Your task to perform on an android device: Show me popular videos on Youtube Image 0: 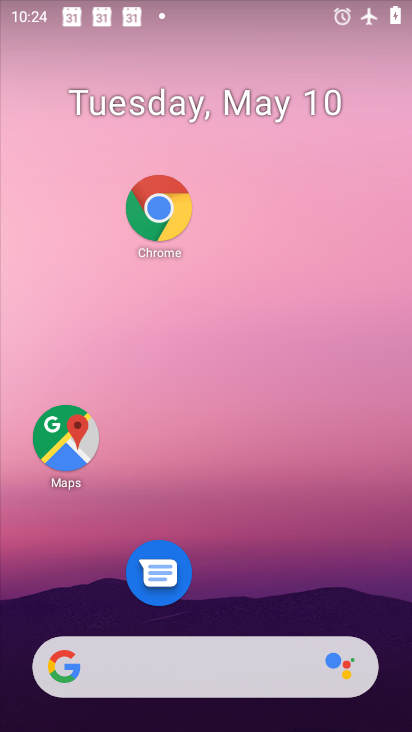
Step 0: drag from (302, 720) to (338, 165)
Your task to perform on an android device: Show me popular videos on Youtube Image 1: 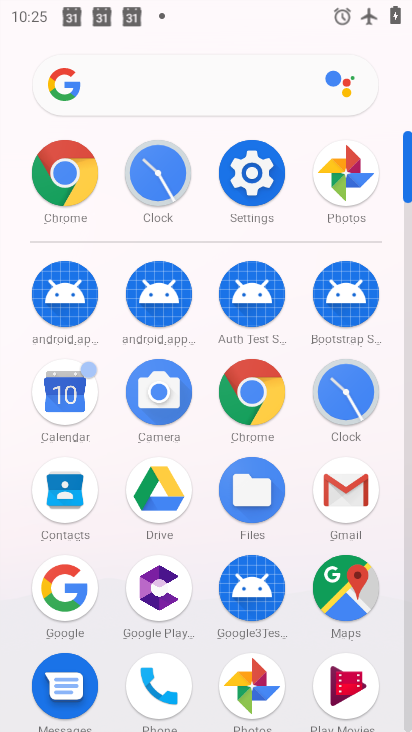
Step 1: drag from (201, 539) to (218, 308)
Your task to perform on an android device: Show me popular videos on Youtube Image 2: 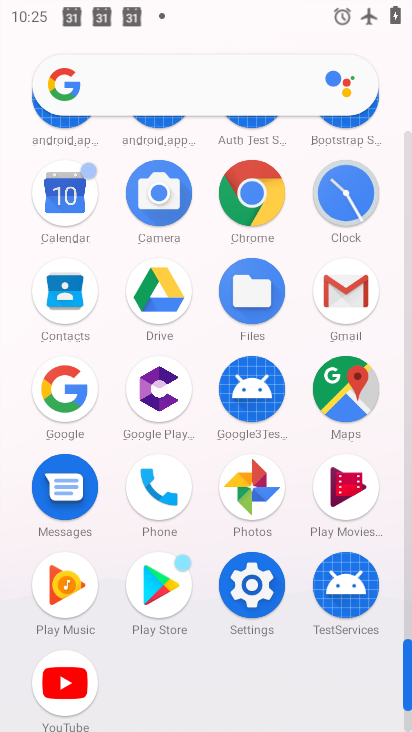
Step 2: click (69, 690)
Your task to perform on an android device: Show me popular videos on Youtube Image 3: 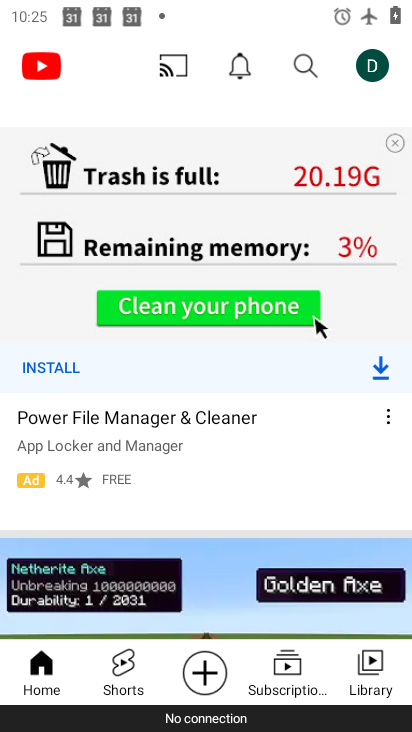
Step 3: click (301, 56)
Your task to perform on an android device: Show me popular videos on Youtube Image 4: 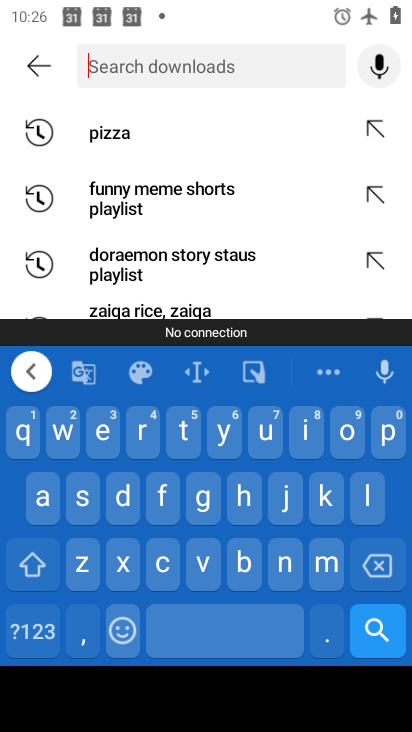
Step 4: click (379, 441)
Your task to perform on an android device: Show me popular videos on Youtube Image 5: 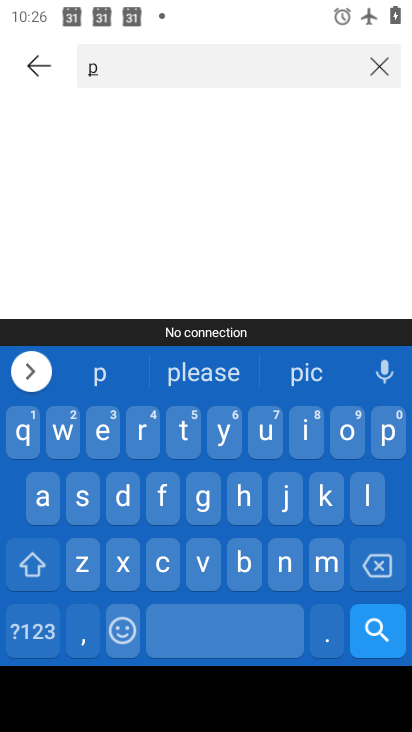
Step 5: click (343, 428)
Your task to perform on an android device: Show me popular videos on Youtube Image 6: 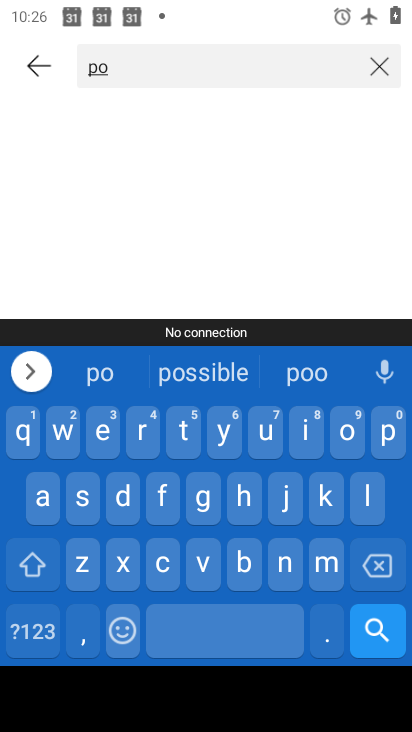
Step 6: click (385, 435)
Your task to perform on an android device: Show me popular videos on Youtube Image 7: 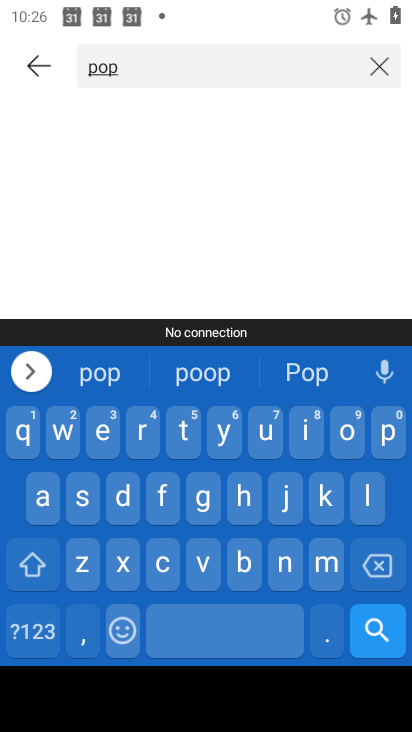
Step 7: click (262, 434)
Your task to perform on an android device: Show me popular videos on Youtube Image 8: 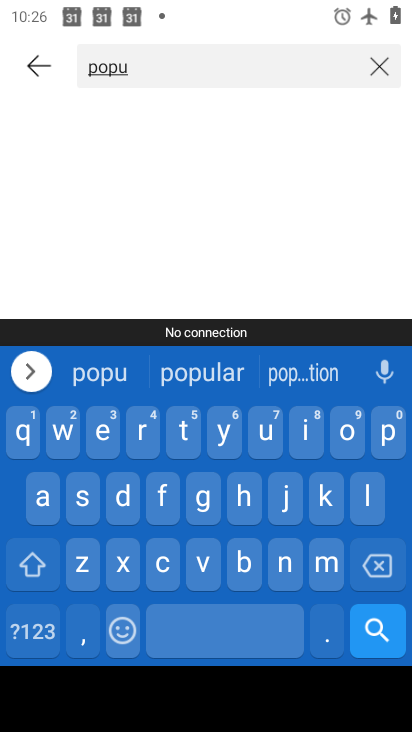
Step 8: click (229, 375)
Your task to perform on an android device: Show me popular videos on Youtube Image 9: 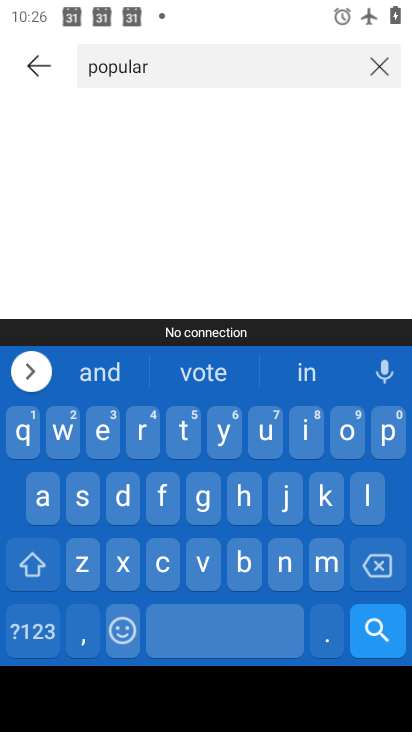
Step 9: click (207, 565)
Your task to perform on an android device: Show me popular videos on Youtube Image 10: 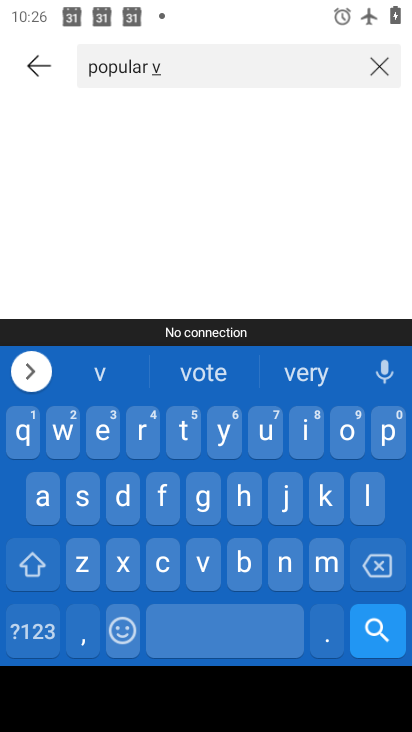
Step 10: click (306, 437)
Your task to perform on an android device: Show me popular videos on Youtube Image 11: 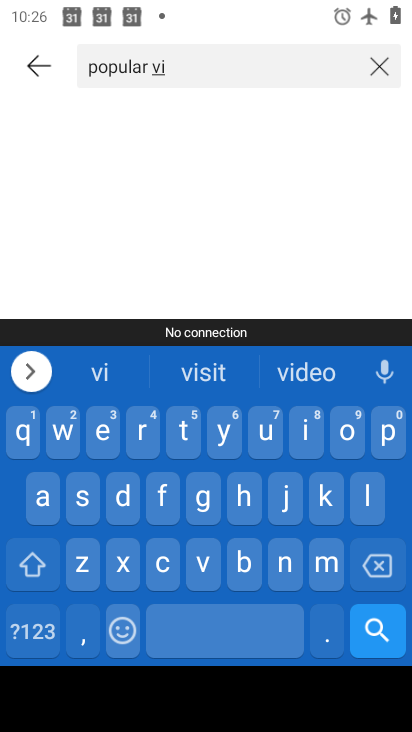
Step 11: click (301, 380)
Your task to perform on an android device: Show me popular videos on Youtube Image 12: 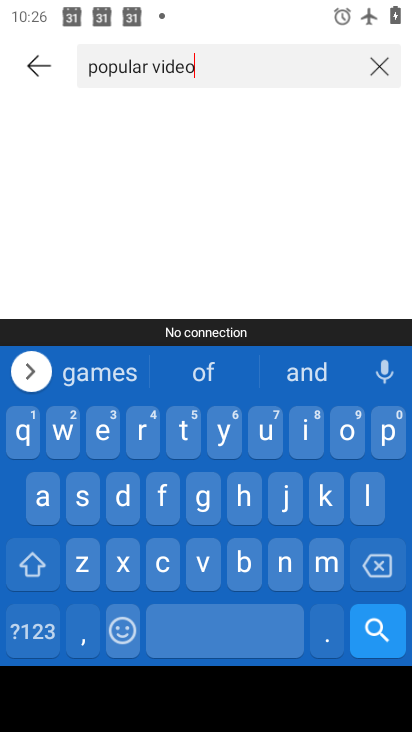
Step 12: press home button
Your task to perform on an android device: Show me popular videos on Youtube Image 13: 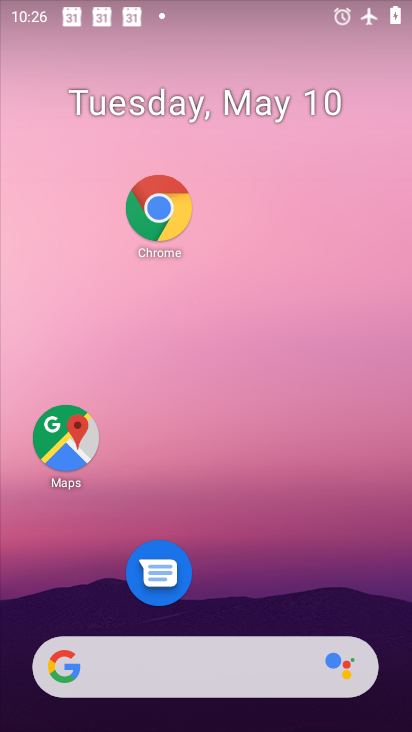
Step 13: drag from (281, 684) to (343, 109)
Your task to perform on an android device: Show me popular videos on Youtube Image 14: 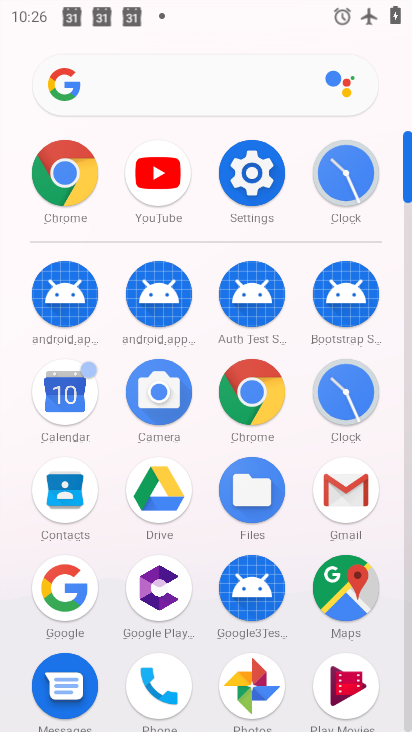
Step 14: click (262, 170)
Your task to perform on an android device: Show me popular videos on Youtube Image 15: 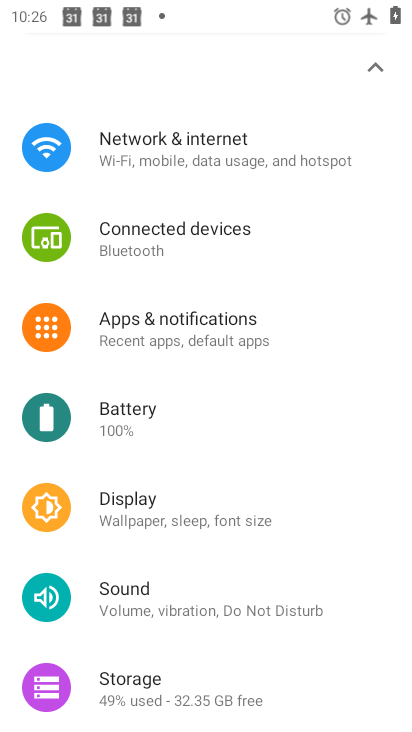
Step 15: click (369, 59)
Your task to perform on an android device: Show me popular videos on Youtube Image 16: 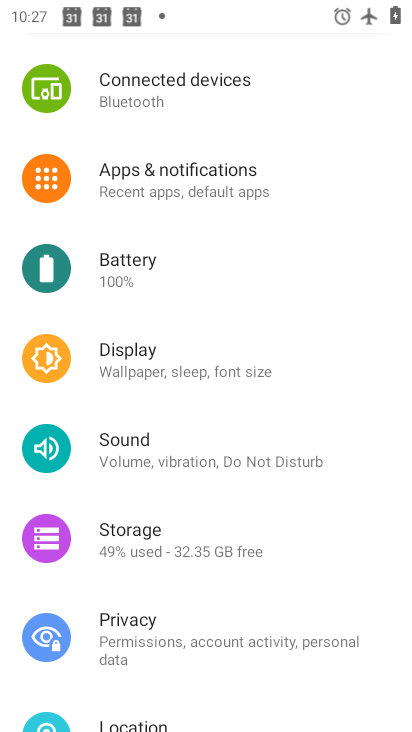
Step 16: drag from (191, 165) to (174, 568)
Your task to perform on an android device: Show me popular videos on Youtube Image 17: 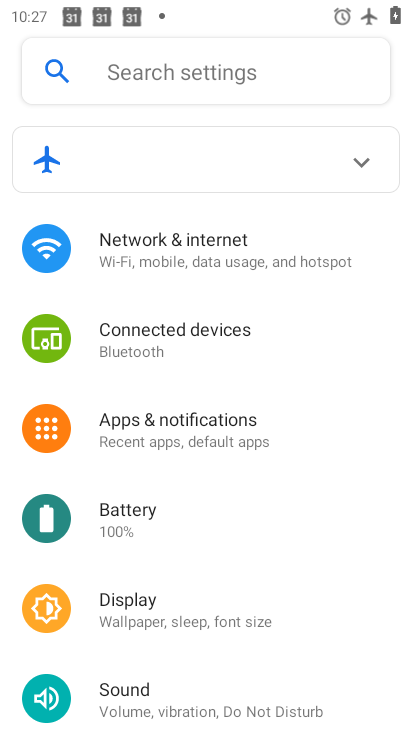
Step 17: click (169, 166)
Your task to perform on an android device: Show me popular videos on Youtube Image 18: 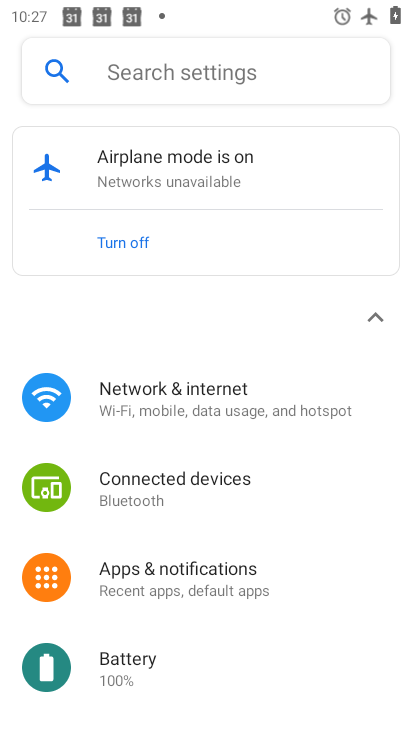
Step 18: click (118, 239)
Your task to perform on an android device: Show me popular videos on Youtube Image 19: 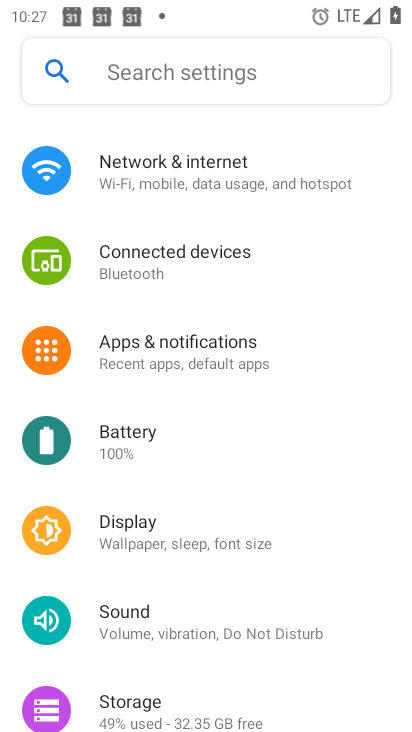
Step 19: press home button
Your task to perform on an android device: Show me popular videos on Youtube Image 20: 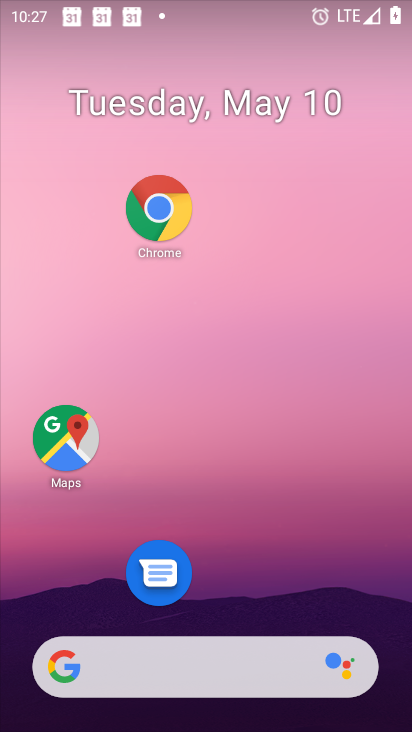
Step 20: drag from (229, 694) to (363, 277)
Your task to perform on an android device: Show me popular videos on Youtube Image 21: 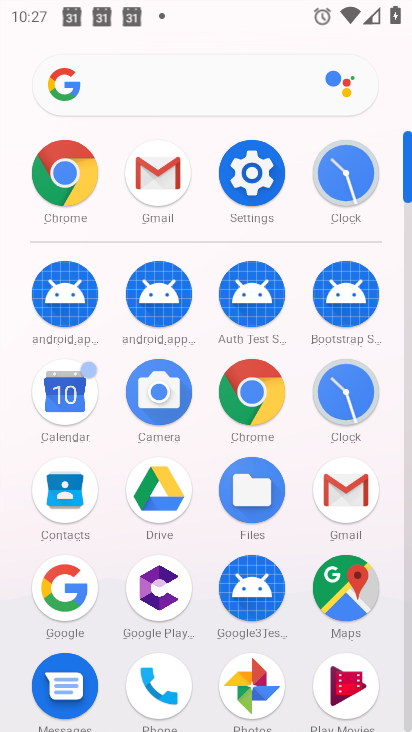
Step 21: drag from (206, 540) to (232, 397)
Your task to perform on an android device: Show me popular videos on Youtube Image 22: 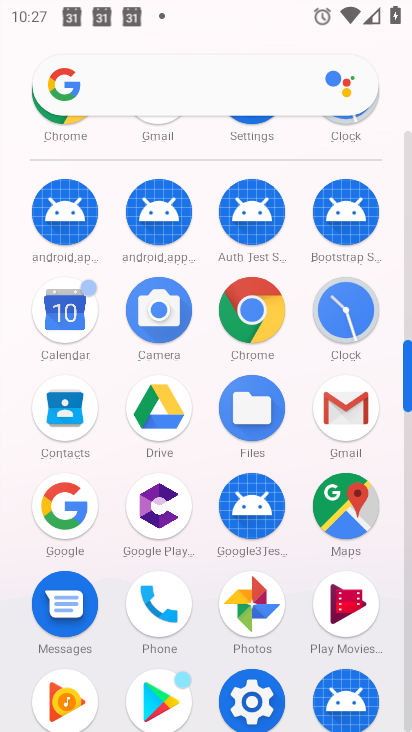
Step 22: drag from (214, 614) to (246, 472)
Your task to perform on an android device: Show me popular videos on Youtube Image 23: 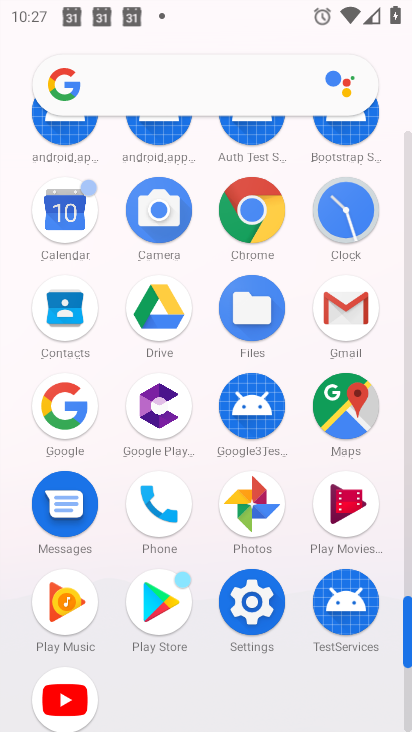
Step 23: click (61, 695)
Your task to perform on an android device: Show me popular videos on Youtube Image 24: 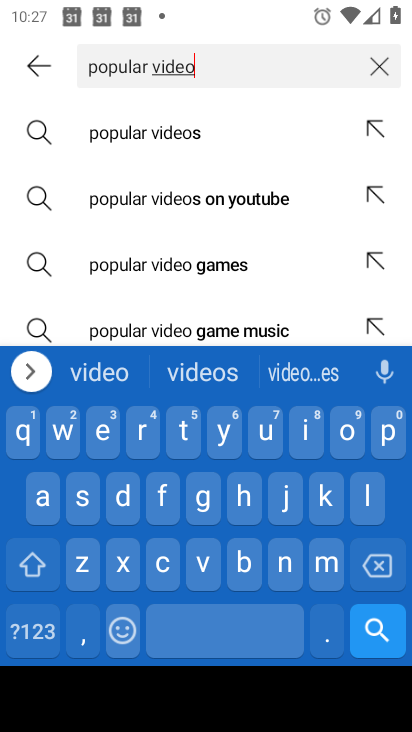
Step 24: click (374, 626)
Your task to perform on an android device: Show me popular videos on Youtube Image 25: 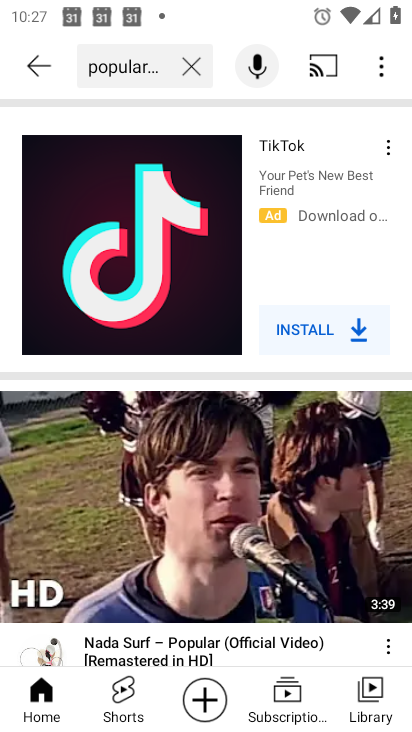
Step 25: task complete